Your task to perform on an android device: Open ESPN.com Image 0: 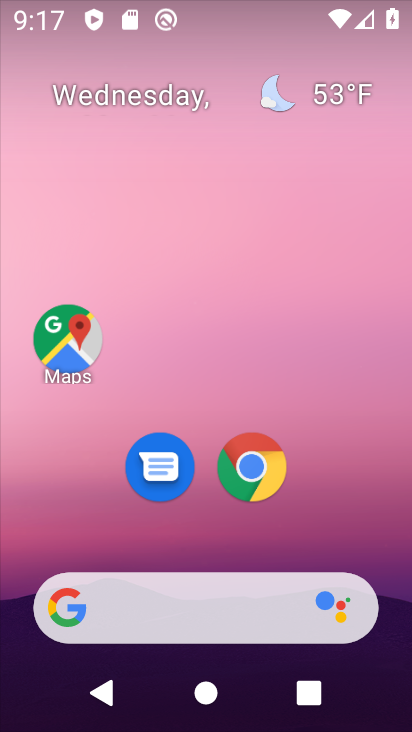
Step 0: press home button
Your task to perform on an android device: Open ESPN.com Image 1: 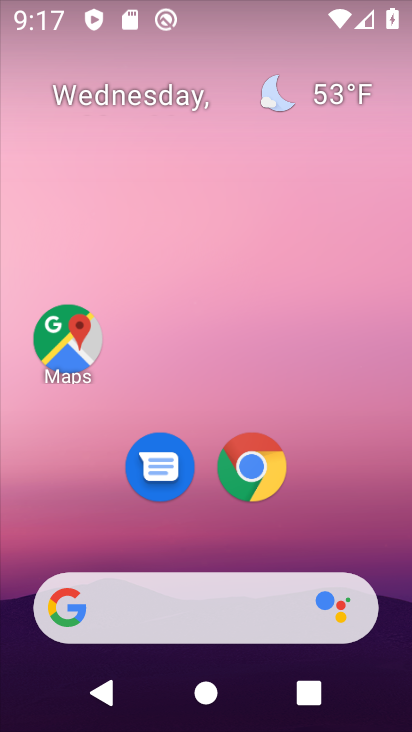
Step 1: press home button
Your task to perform on an android device: Open ESPN.com Image 2: 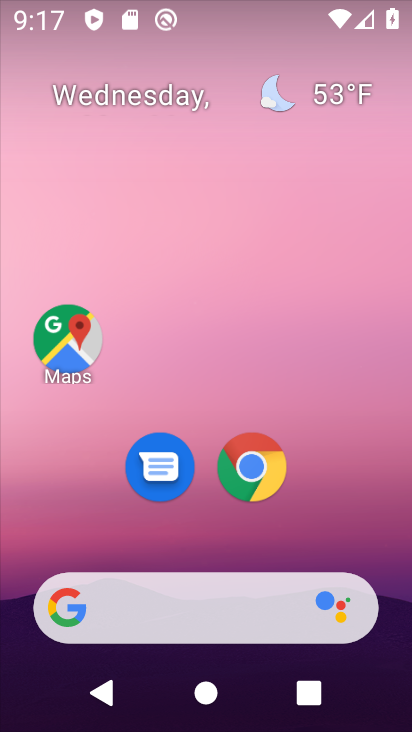
Step 2: click (265, 463)
Your task to perform on an android device: Open ESPN.com Image 3: 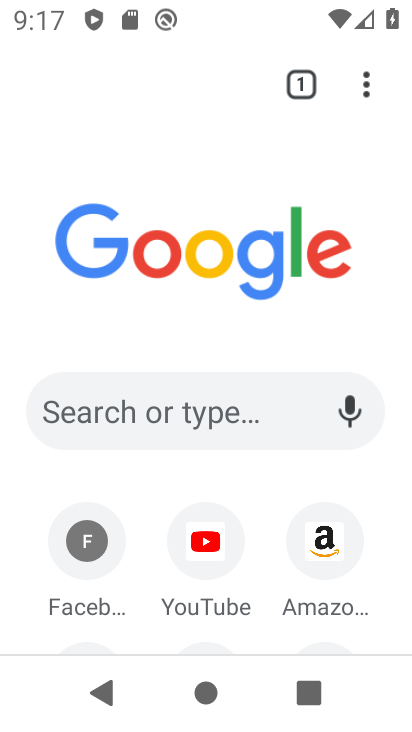
Step 3: drag from (201, 499) to (193, 321)
Your task to perform on an android device: Open ESPN.com Image 4: 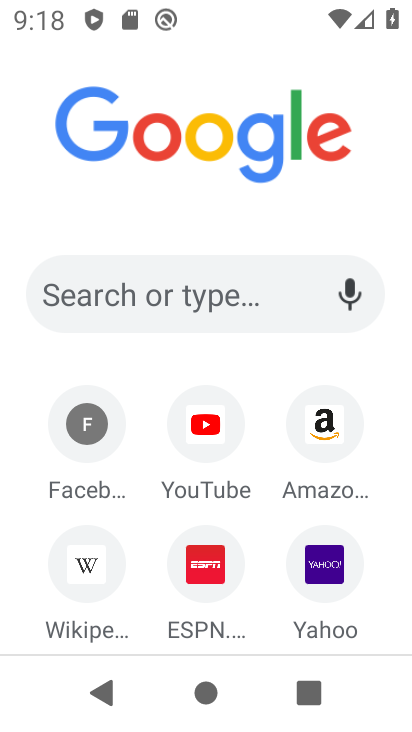
Step 4: click (213, 581)
Your task to perform on an android device: Open ESPN.com Image 5: 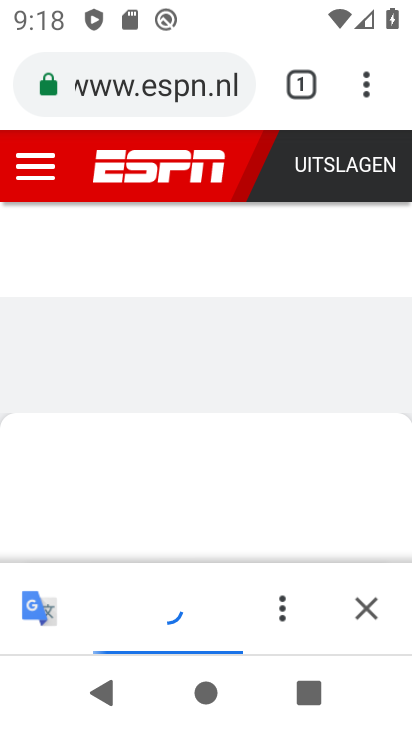
Step 5: task complete